Your task to perform on an android device: toggle translation in the chrome app Image 0: 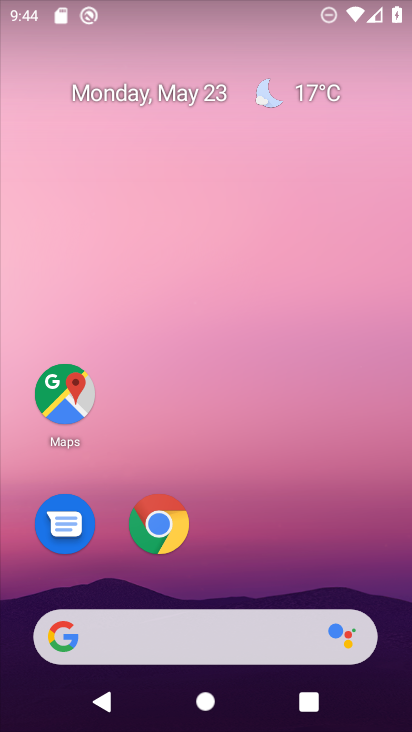
Step 0: click (165, 516)
Your task to perform on an android device: toggle translation in the chrome app Image 1: 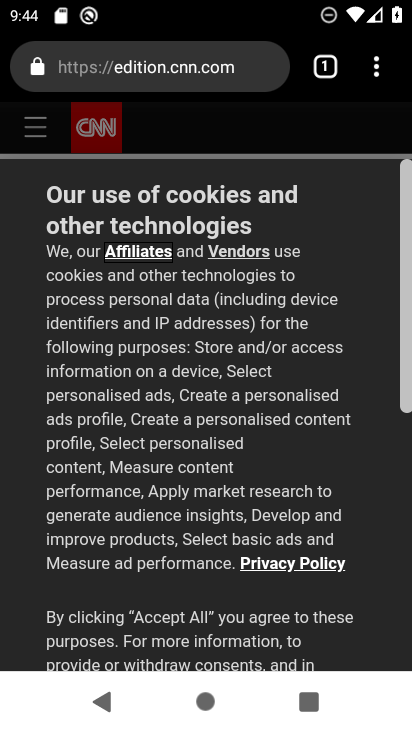
Step 1: drag from (374, 64) to (162, 519)
Your task to perform on an android device: toggle translation in the chrome app Image 2: 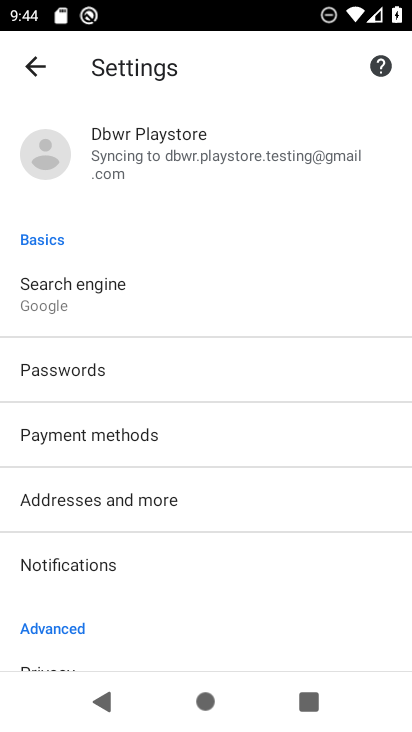
Step 2: drag from (156, 596) to (208, 189)
Your task to perform on an android device: toggle translation in the chrome app Image 3: 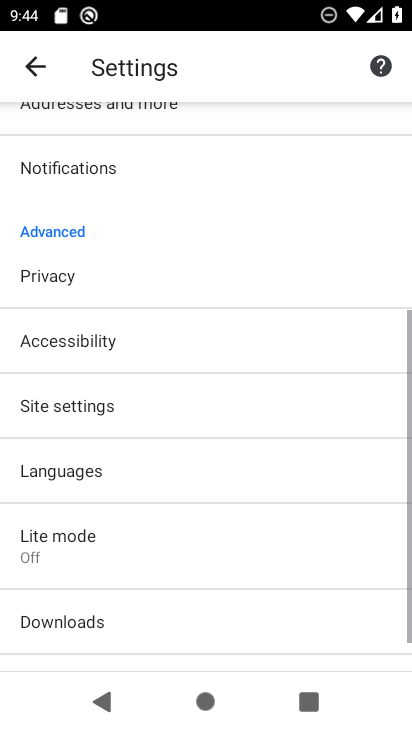
Step 3: click (93, 474)
Your task to perform on an android device: toggle translation in the chrome app Image 4: 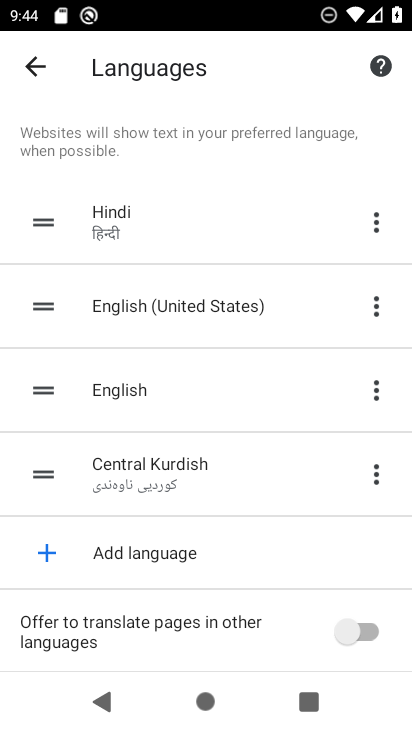
Step 4: click (361, 626)
Your task to perform on an android device: toggle translation in the chrome app Image 5: 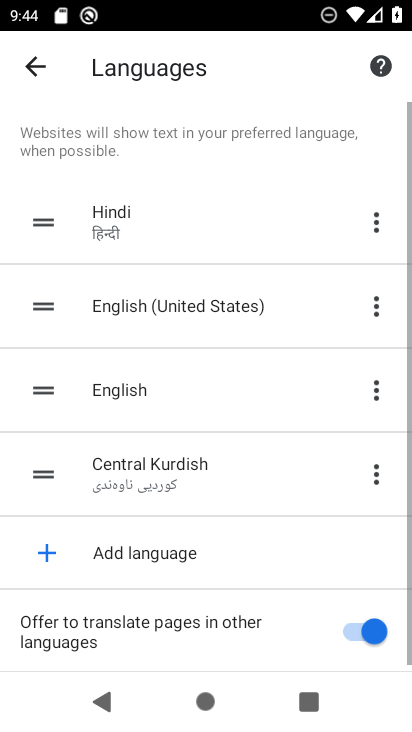
Step 5: task complete